Your task to perform on an android device: See recent photos Image 0: 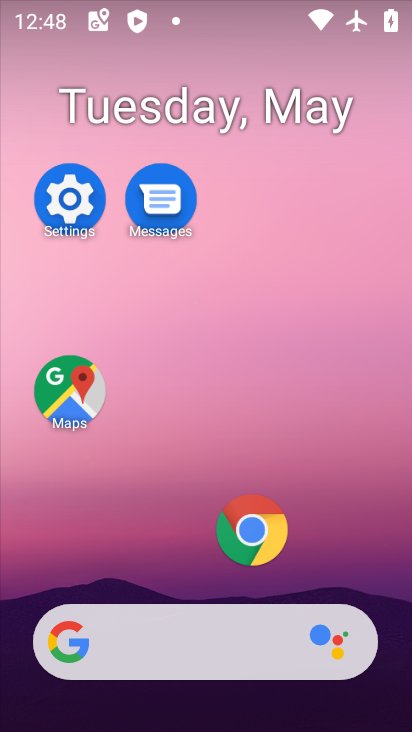
Step 0: drag from (198, 560) to (211, 241)
Your task to perform on an android device: See recent photos Image 1: 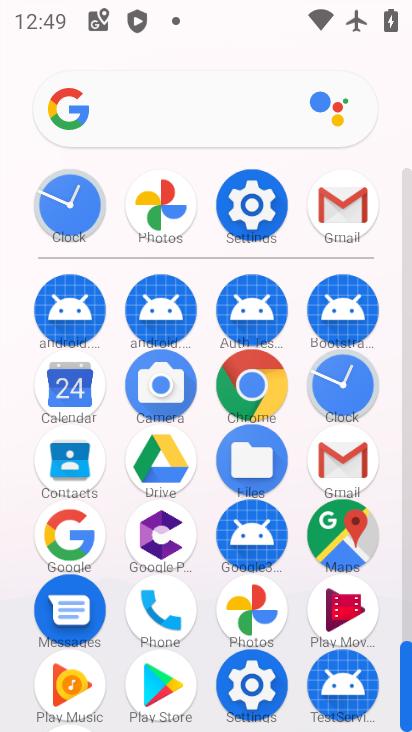
Step 1: click (158, 231)
Your task to perform on an android device: See recent photos Image 2: 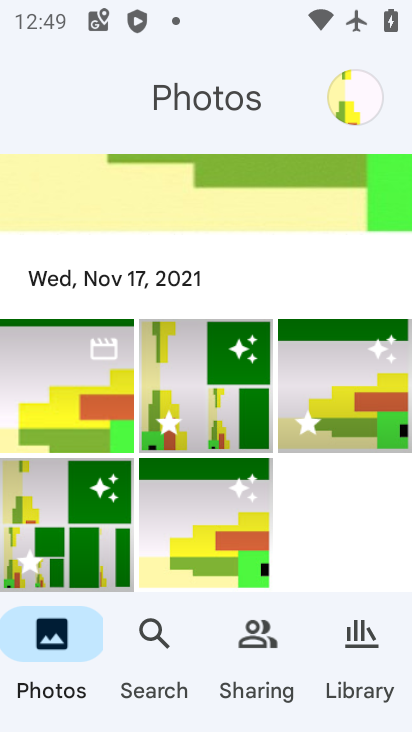
Step 2: task complete